Your task to perform on an android device: Open Chrome and go to the settings page Image 0: 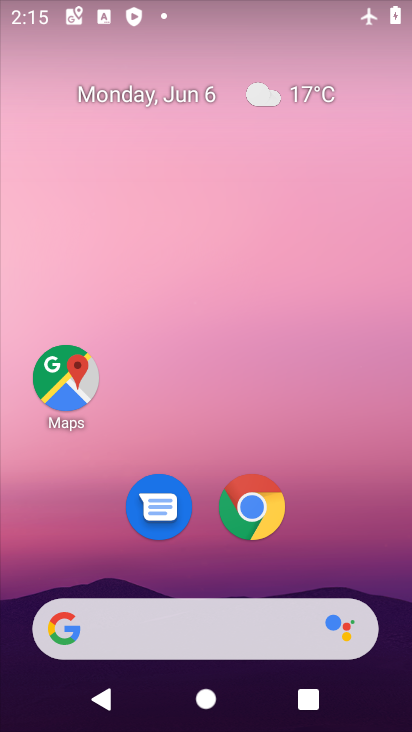
Step 0: click (251, 512)
Your task to perform on an android device: Open Chrome and go to the settings page Image 1: 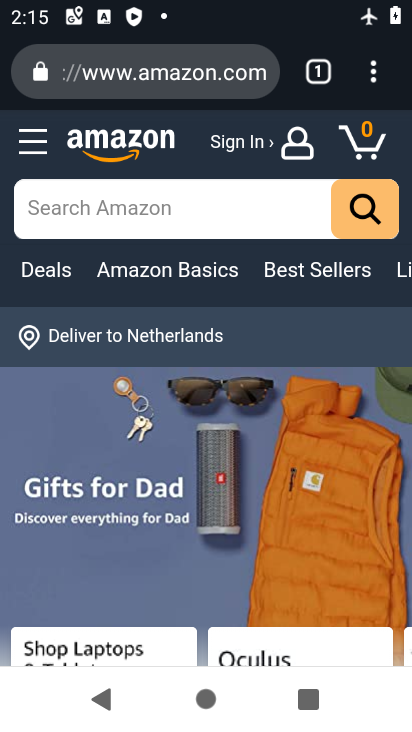
Step 1: click (372, 86)
Your task to perform on an android device: Open Chrome and go to the settings page Image 2: 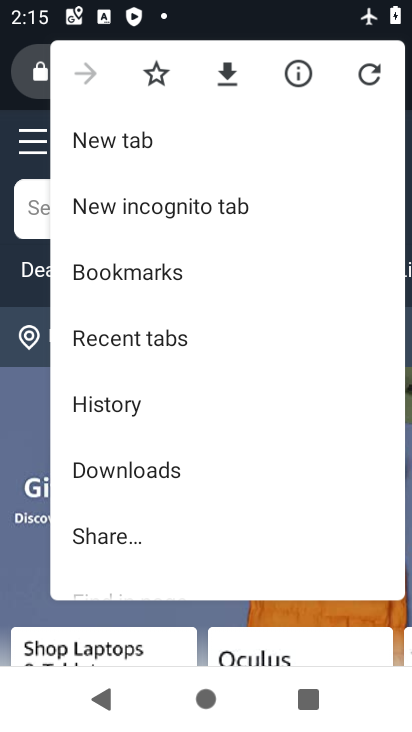
Step 2: drag from (262, 471) to (292, 125)
Your task to perform on an android device: Open Chrome and go to the settings page Image 3: 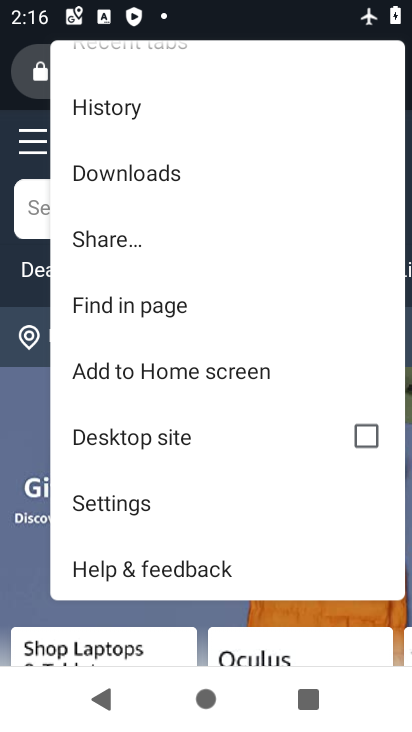
Step 3: click (235, 502)
Your task to perform on an android device: Open Chrome and go to the settings page Image 4: 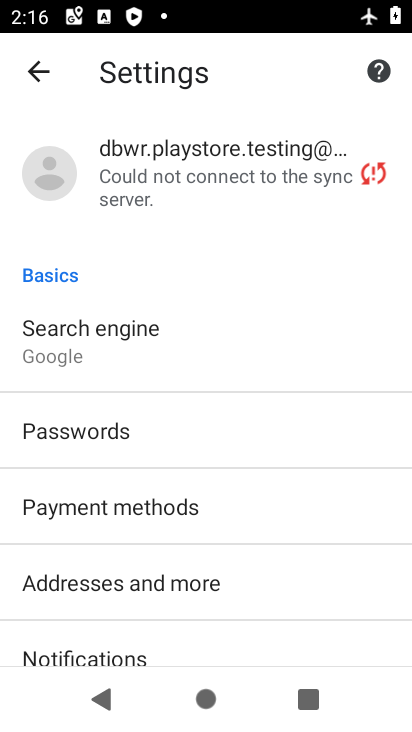
Step 4: task complete